Your task to perform on an android device: delete a single message in the gmail app Image 0: 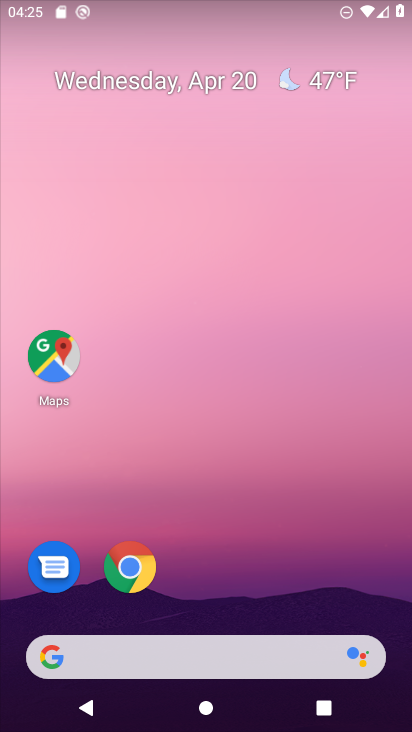
Step 0: drag from (229, 604) to (369, 16)
Your task to perform on an android device: delete a single message in the gmail app Image 1: 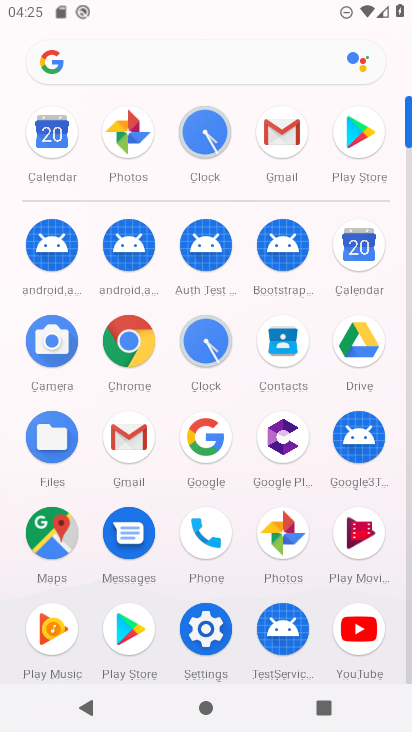
Step 1: click (282, 142)
Your task to perform on an android device: delete a single message in the gmail app Image 2: 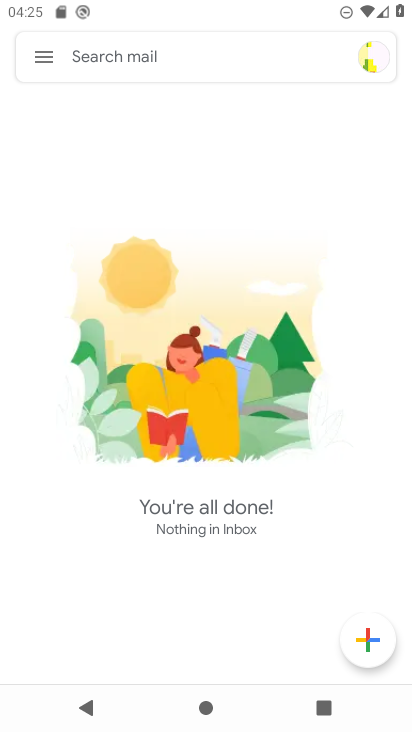
Step 2: task complete